Your task to perform on an android device: Go to internet settings Image 0: 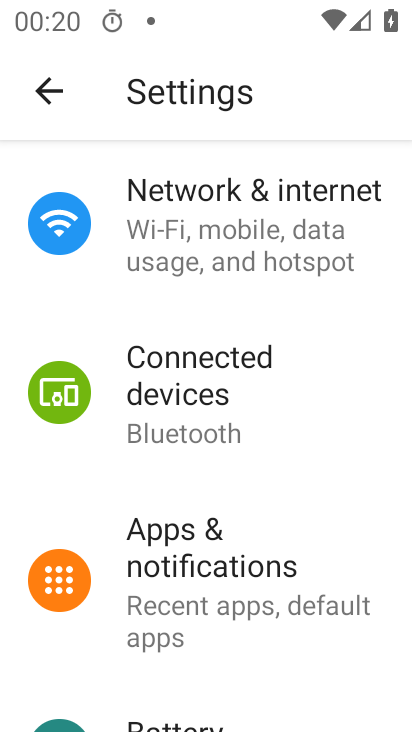
Step 0: click (221, 239)
Your task to perform on an android device: Go to internet settings Image 1: 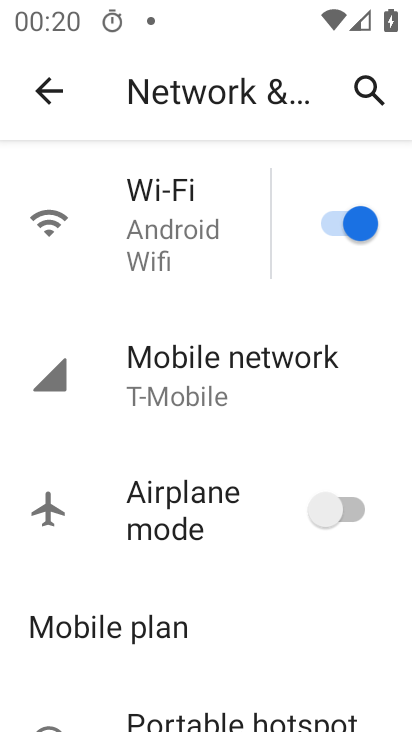
Step 1: task complete